Your task to perform on an android device: Check the news Image 0: 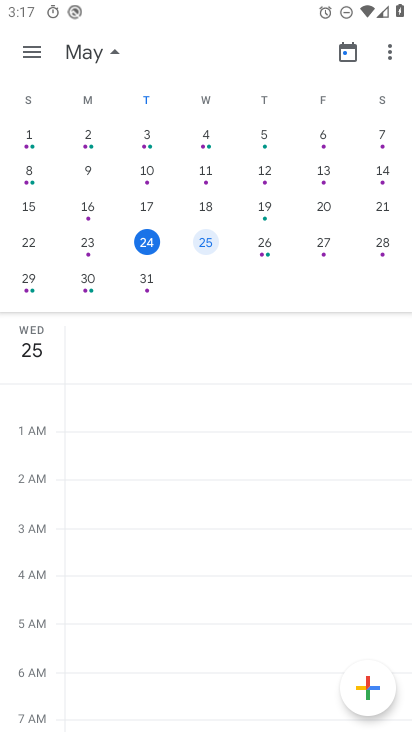
Step 0: press home button
Your task to perform on an android device: Check the news Image 1: 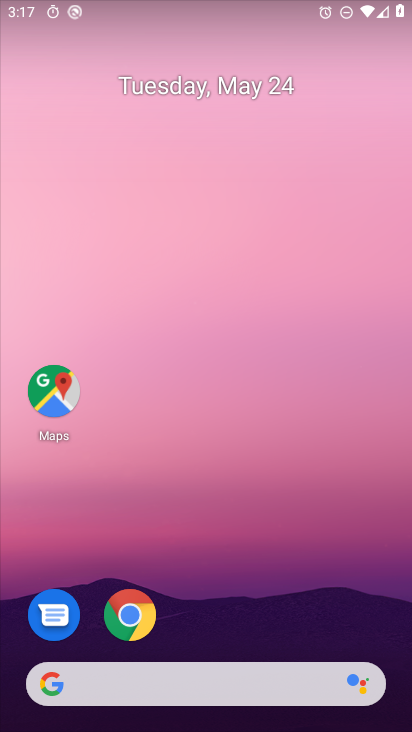
Step 1: drag from (158, 657) to (194, 150)
Your task to perform on an android device: Check the news Image 2: 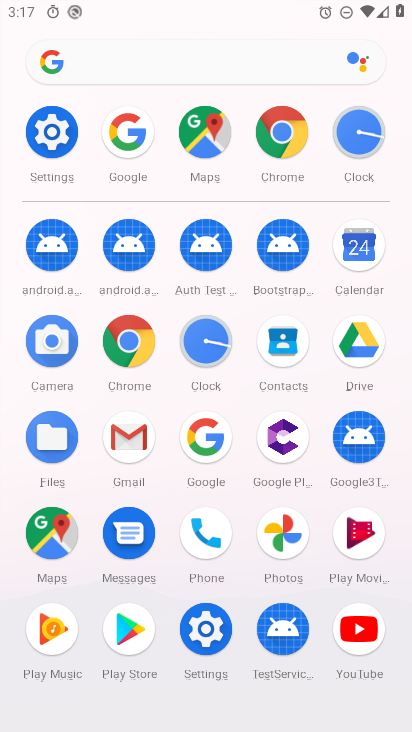
Step 2: click (217, 442)
Your task to perform on an android device: Check the news Image 3: 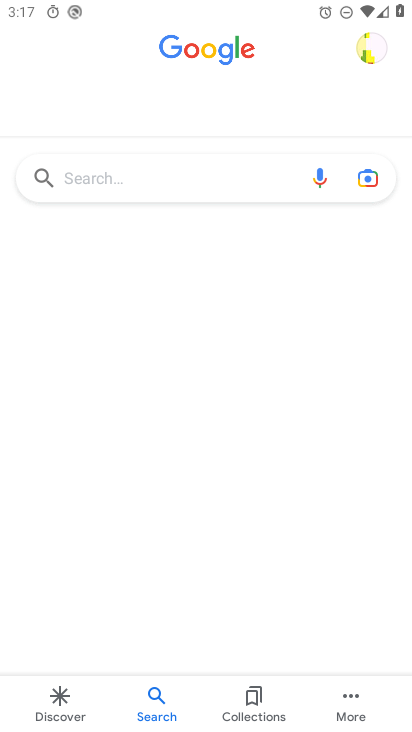
Step 3: drag from (170, 178) to (65, 178)
Your task to perform on an android device: Check the news Image 4: 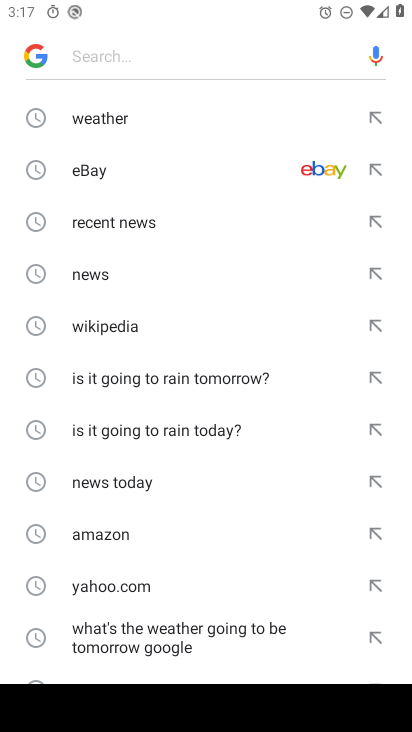
Step 4: click (119, 260)
Your task to perform on an android device: Check the news Image 5: 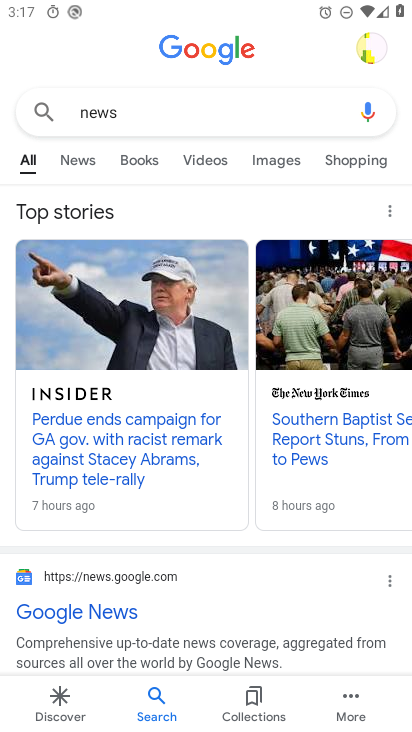
Step 5: task complete